Your task to perform on an android device: Go to display settings Image 0: 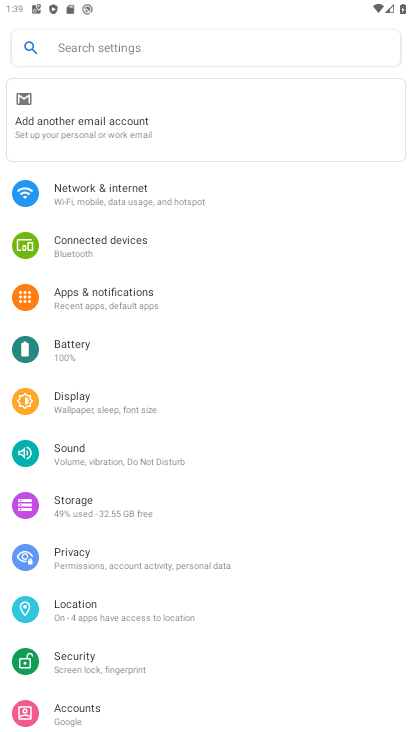
Step 0: click (52, 409)
Your task to perform on an android device: Go to display settings Image 1: 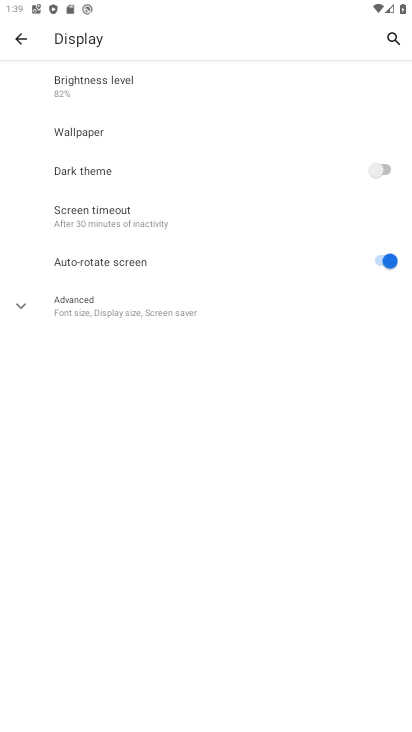
Step 1: task complete